Your task to perform on an android device: find photos in the google photos app Image 0: 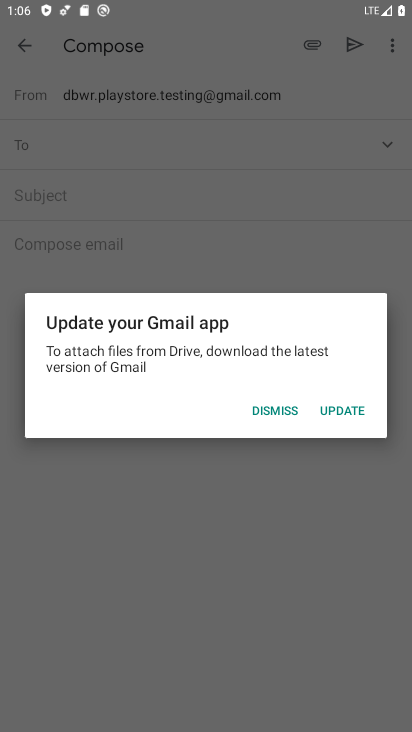
Step 0: press home button
Your task to perform on an android device: find photos in the google photos app Image 1: 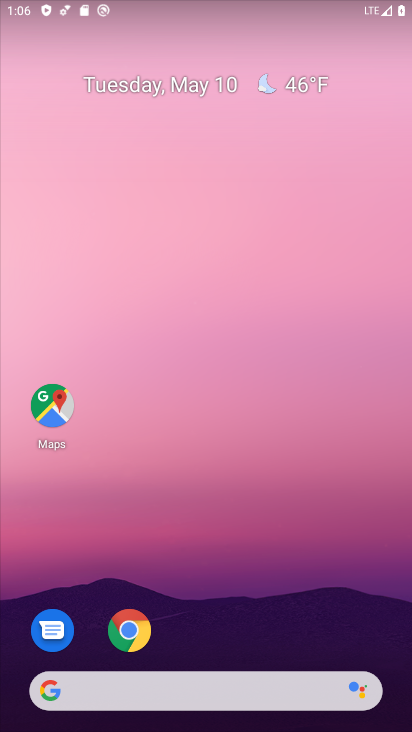
Step 1: drag from (226, 670) to (155, 2)
Your task to perform on an android device: find photos in the google photos app Image 2: 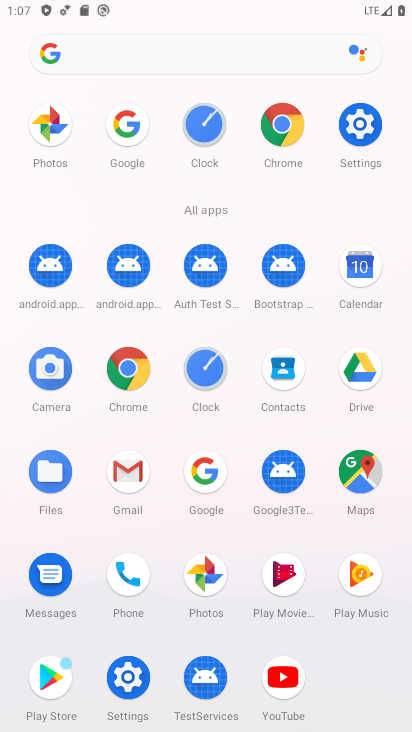
Step 2: click (204, 585)
Your task to perform on an android device: find photos in the google photos app Image 3: 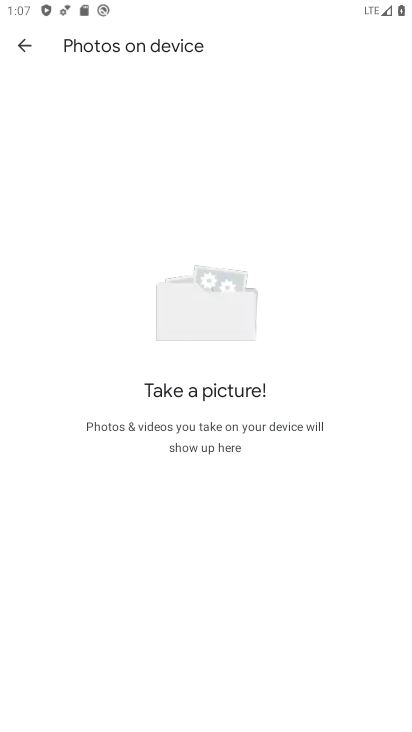
Step 3: click (19, 43)
Your task to perform on an android device: find photos in the google photos app Image 4: 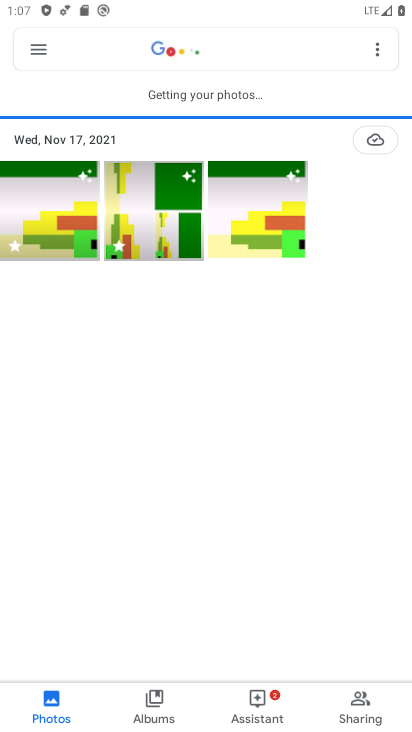
Step 4: task complete